Your task to perform on an android device: Open the stopwatch Image 0: 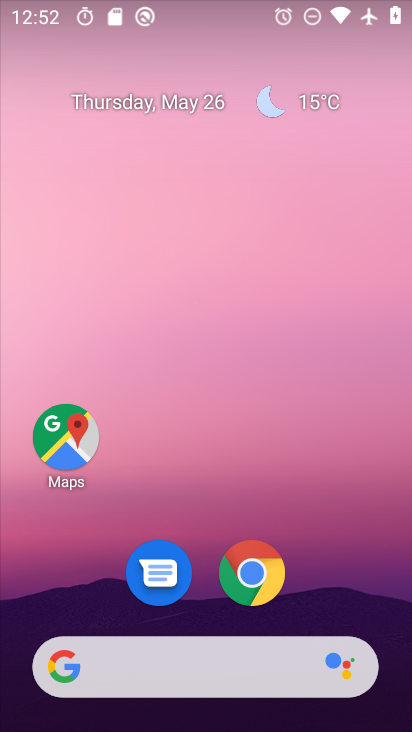
Step 0: drag from (322, 595) to (302, 7)
Your task to perform on an android device: Open the stopwatch Image 1: 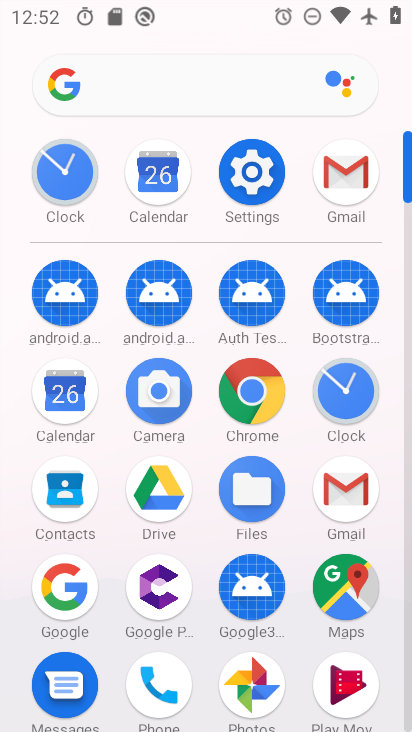
Step 1: click (350, 398)
Your task to perform on an android device: Open the stopwatch Image 2: 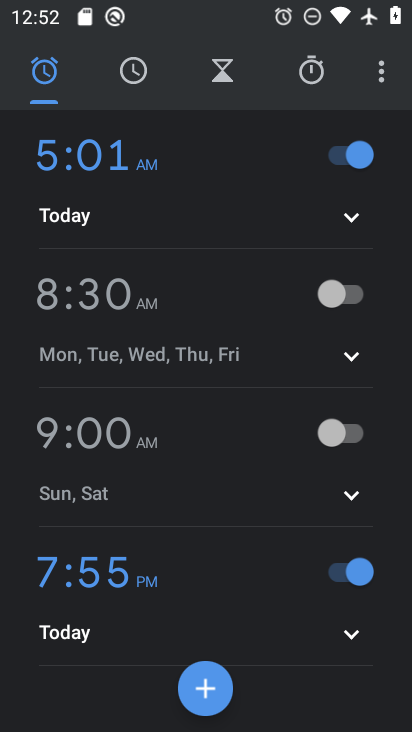
Step 2: click (314, 72)
Your task to perform on an android device: Open the stopwatch Image 3: 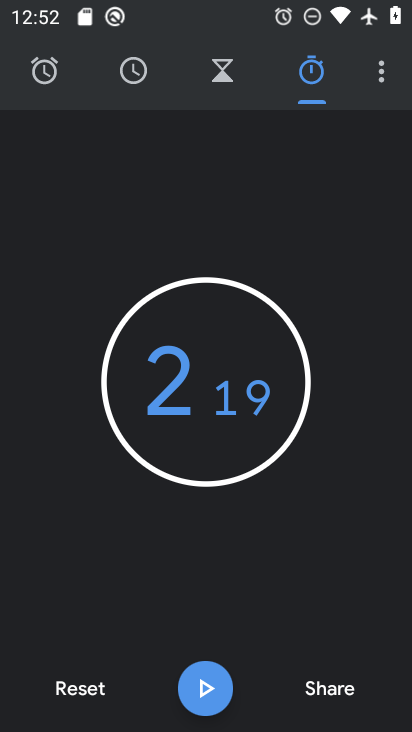
Step 3: task complete